Your task to perform on an android device: What's the weather? Image 0: 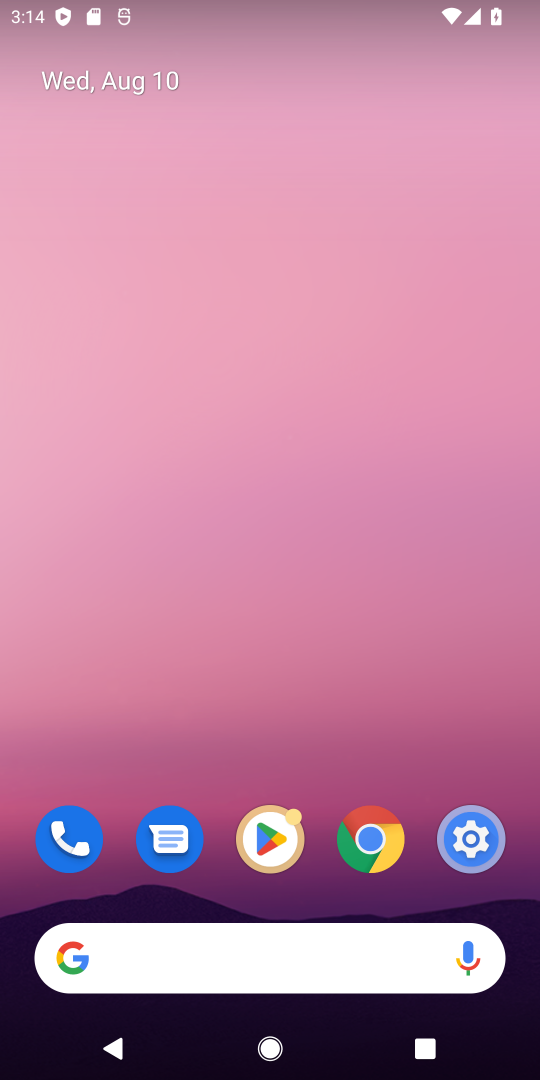
Step 0: click (123, 966)
Your task to perform on an android device: What's the weather? Image 1: 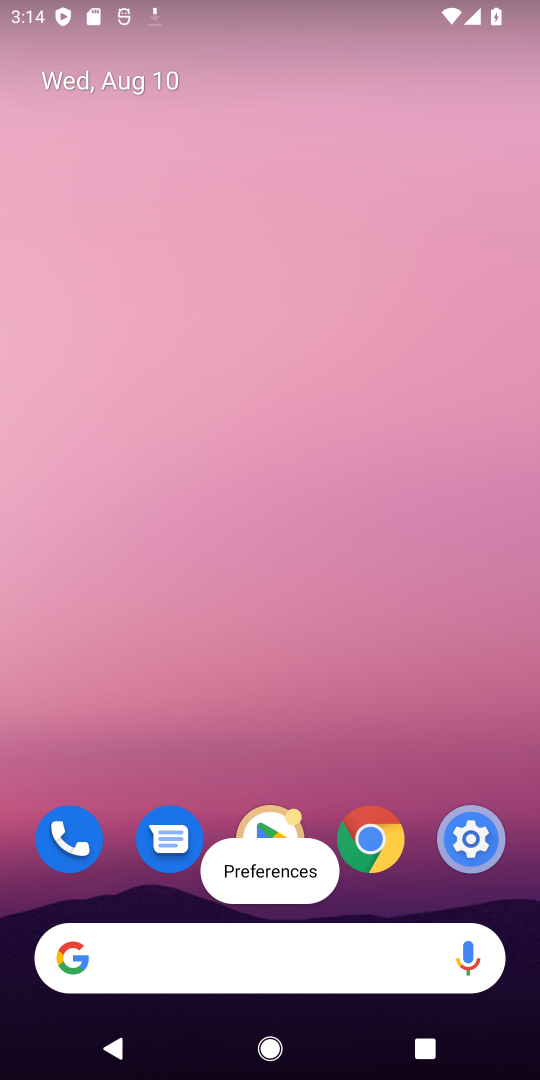
Step 1: click (176, 958)
Your task to perform on an android device: What's the weather? Image 2: 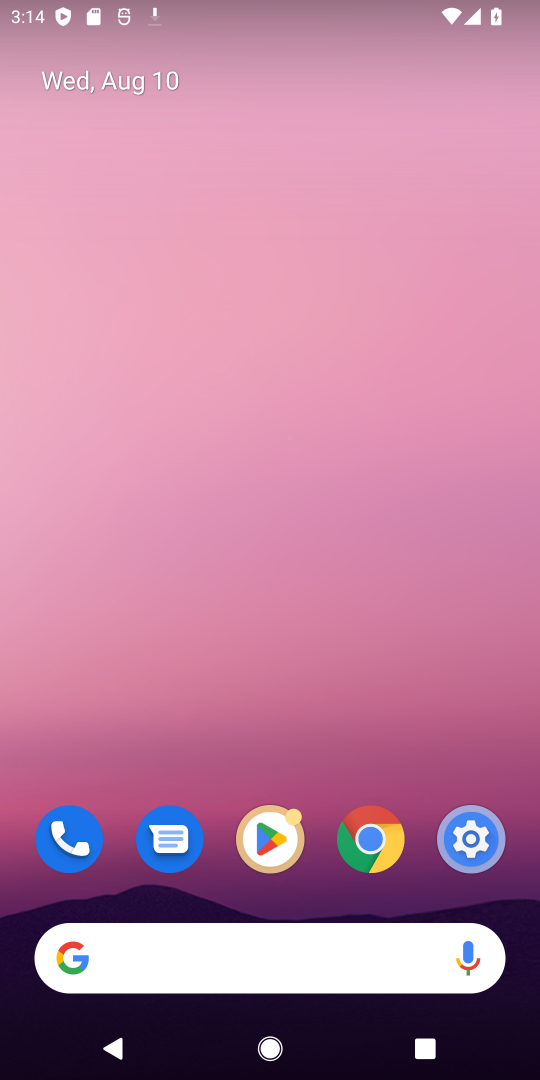
Step 2: click (151, 961)
Your task to perform on an android device: What's the weather? Image 3: 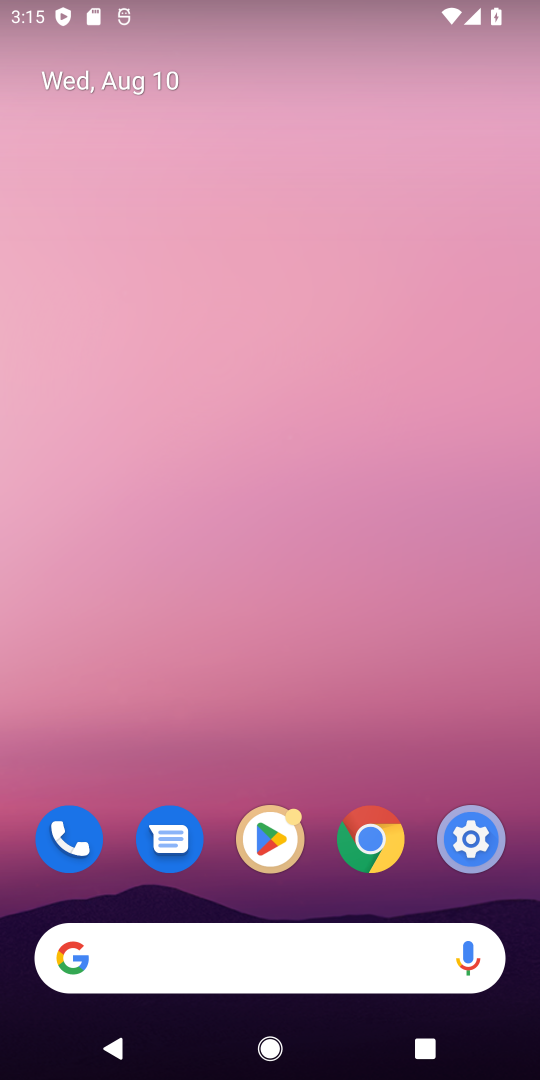
Step 3: click (184, 976)
Your task to perform on an android device: What's the weather? Image 4: 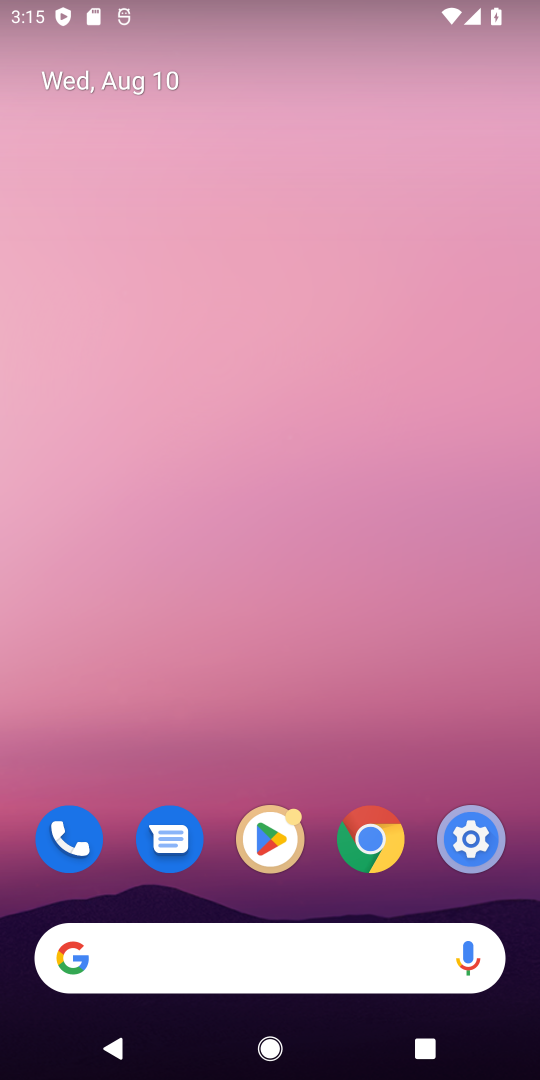
Step 4: click (192, 958)
Your task to perform on an android device: What's the weather? Image 5: 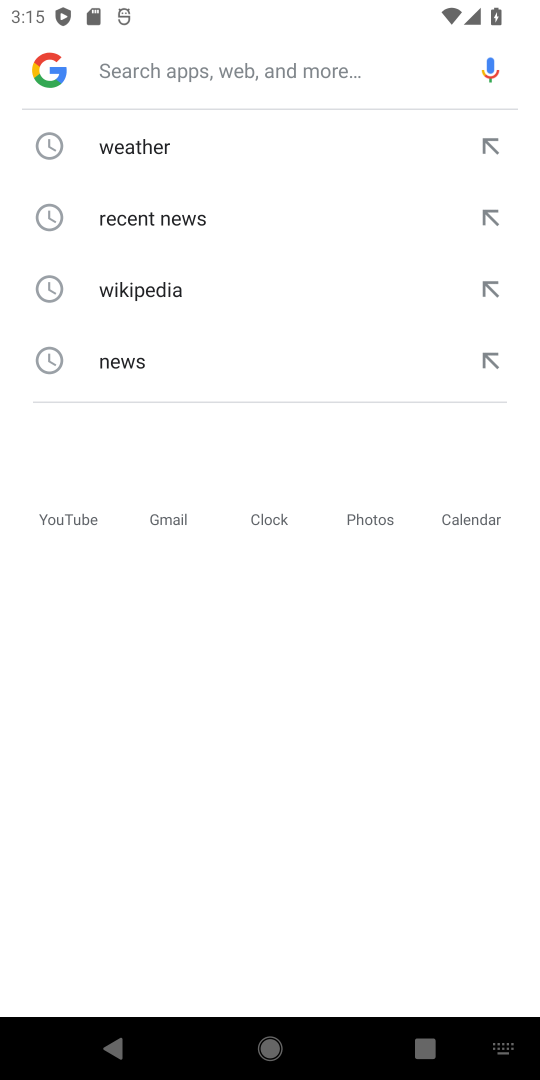
Step 5: type "What's the weather?"
Your task to perform on an android device: What's the weather? Image 6: 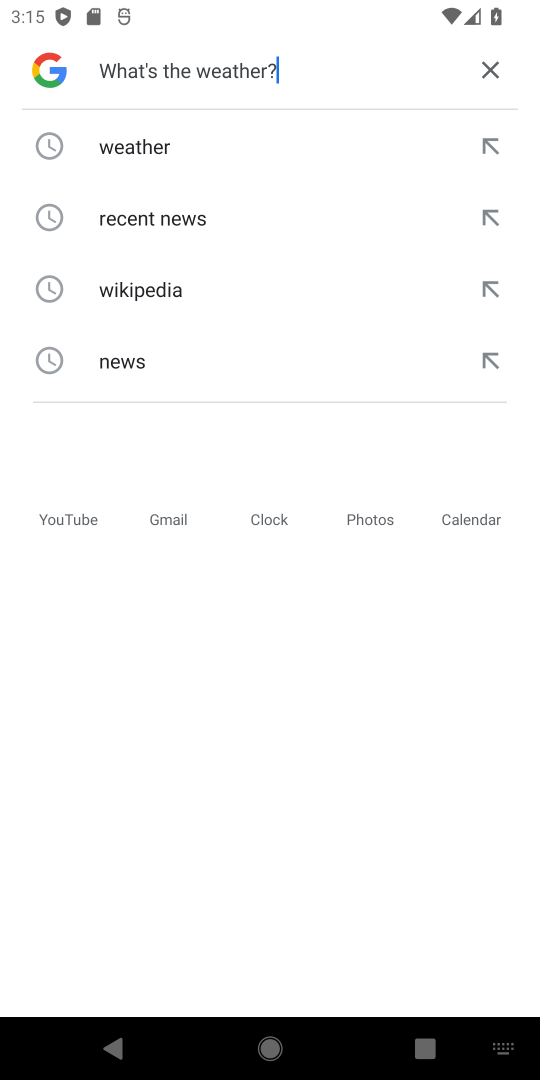
Step 6: type ""
Your task to perform on an android device: What's the weather? Image 7: 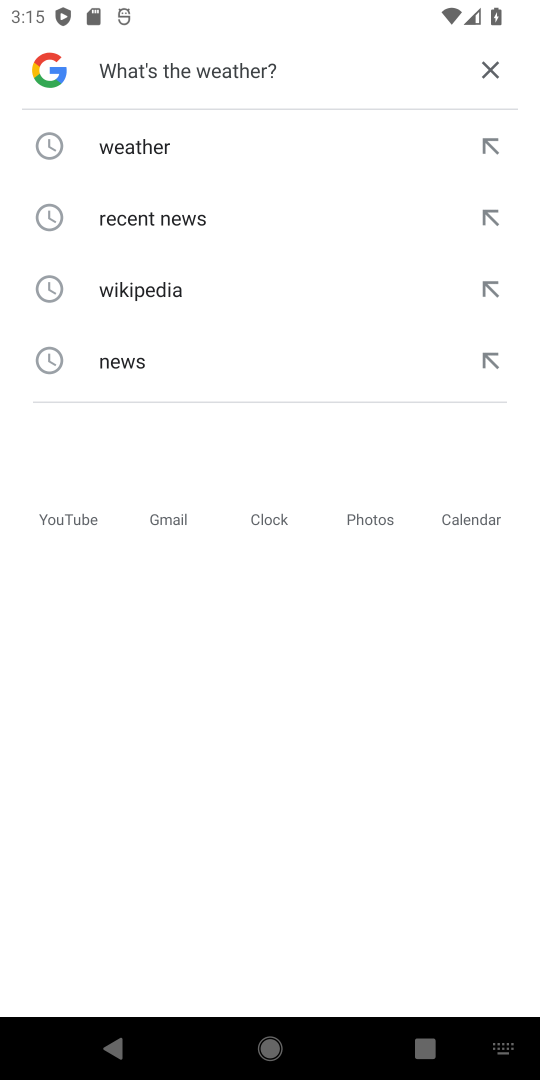
Step 7: type ""
Your task to perform on an android device: What's the weather? Image 8: 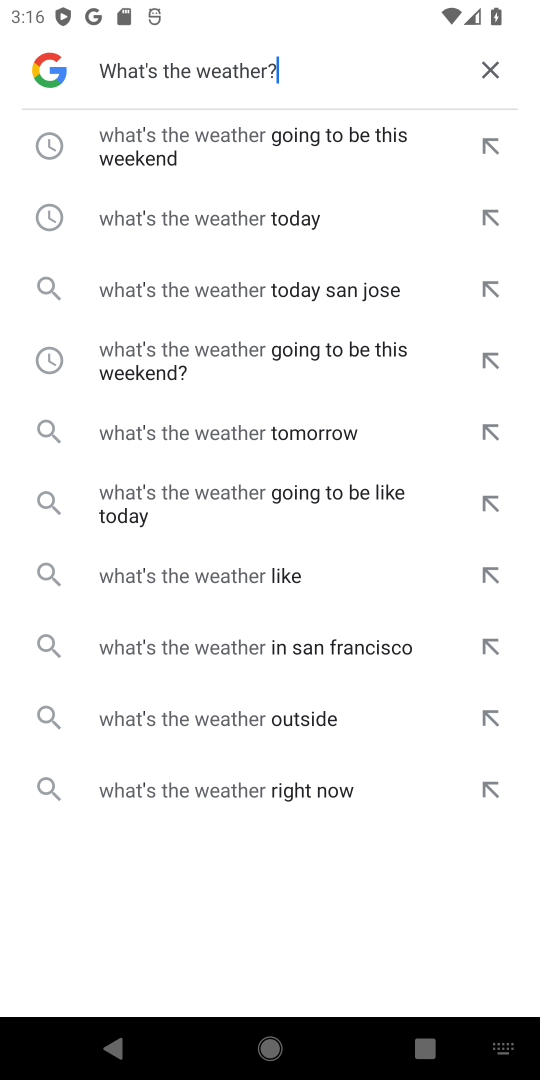
Step 8: task complete